Your task to perform on an android device: Open Reddit.com Image 0: 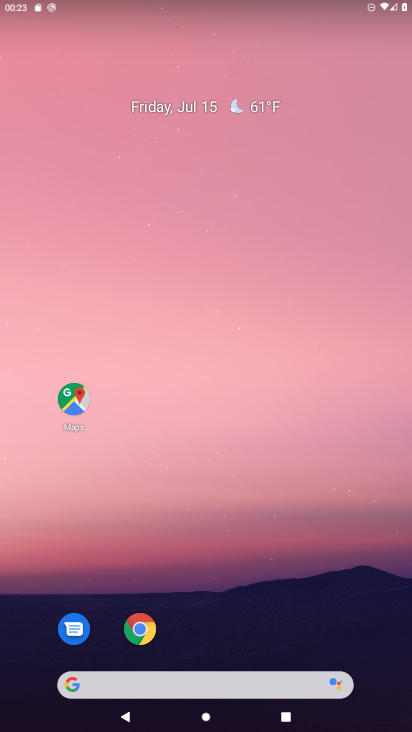
Step 0: click (183, 687)
Your task to perform on an android device: Open Reddit.com Image 1: 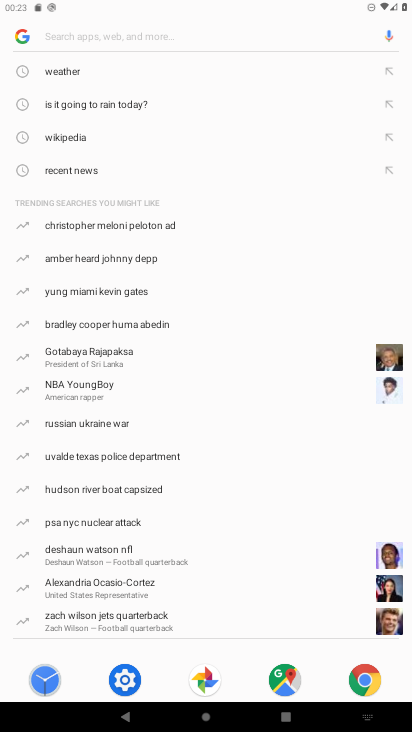
Step 1: type "reddit"
Your task to perform on an android device: Open Reddit.com Image 2: 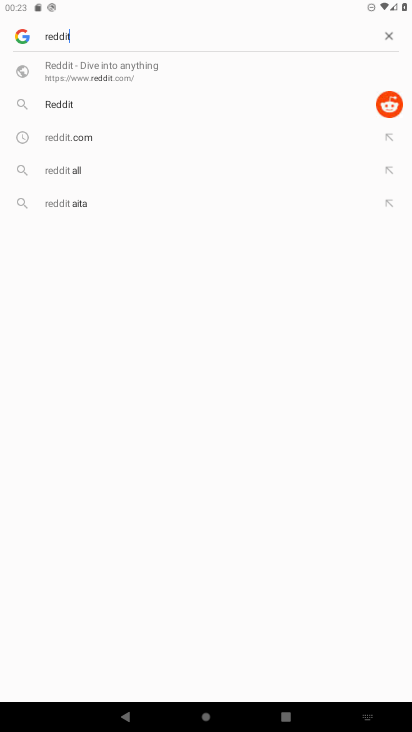
Step 2: click (105, 70)
Your task to perform on an android device: Open Reddit.com Image 3: 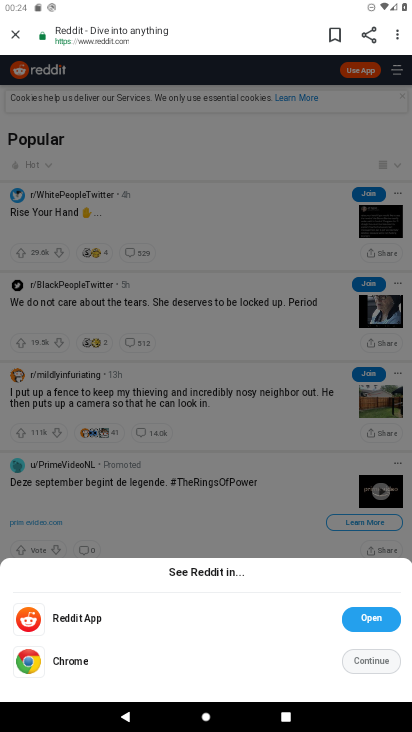
Step 3: task complete